Your task to perform on an android device: Go to notification settings Image 0: 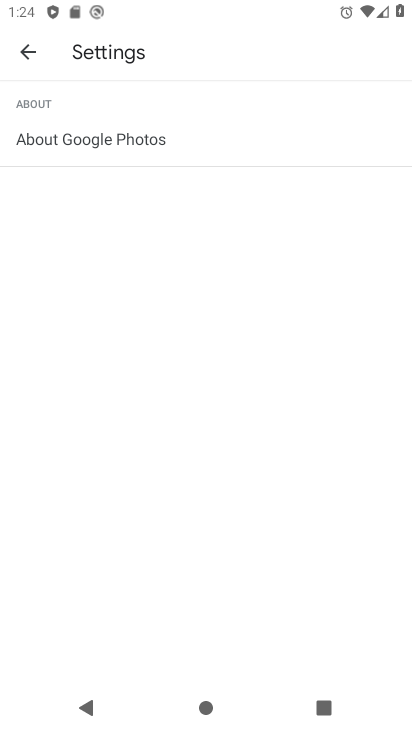
Step 0: press home button
Your task to perform on an android device: Go to notification settings Image 1: 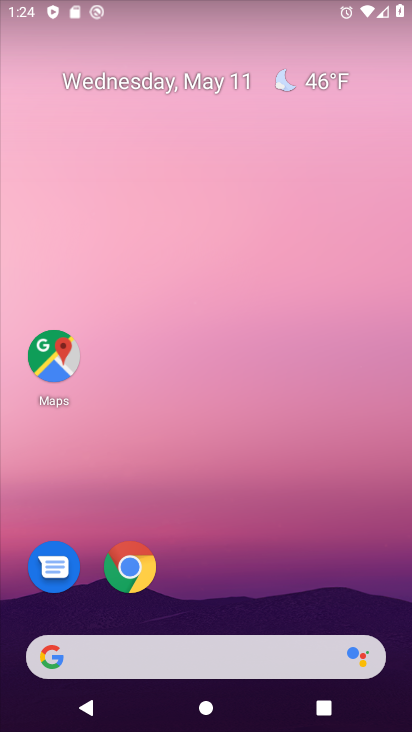
Step 1: drag from (232, 625) to (127, 1)
Your task to perform on an android device: Go to notification settings Image 2: 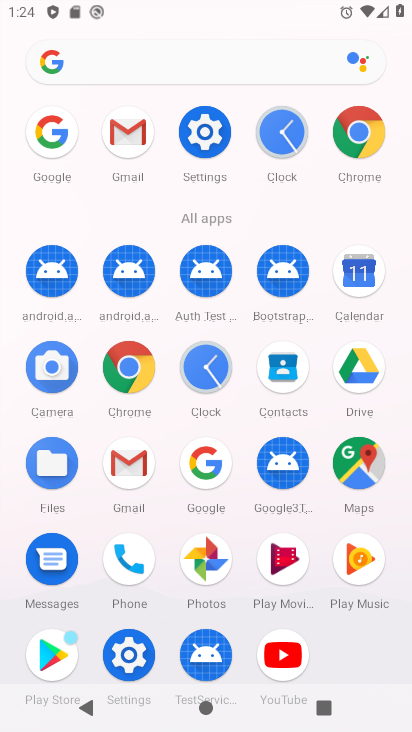
Step 2: click (186, 128)
Your task to perform on an android device: Go to notification settings Image 3: 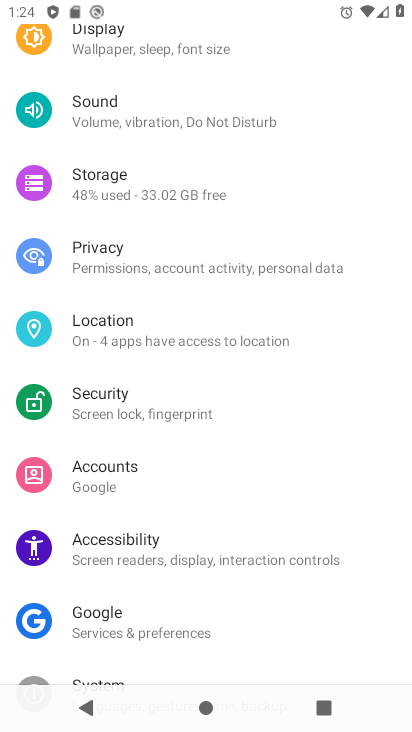
Step 3: drag from (209, 286) to (193, 587)
Your task to perform on an android device: Go to notification settings Image 4: 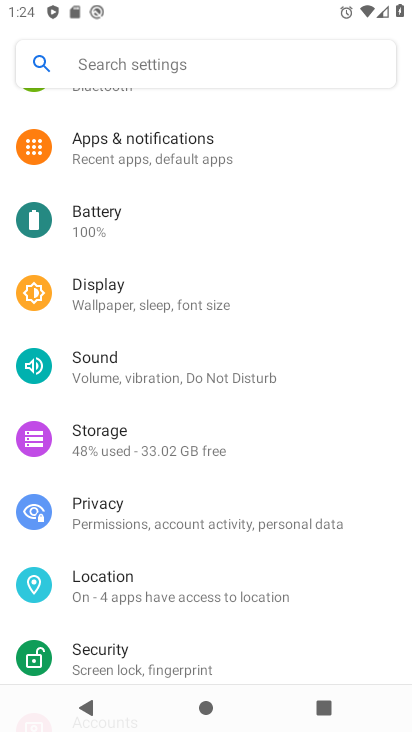
Step 4: click (95, 144)
Your task to perform on an android device: Go to notification settings Image 5: 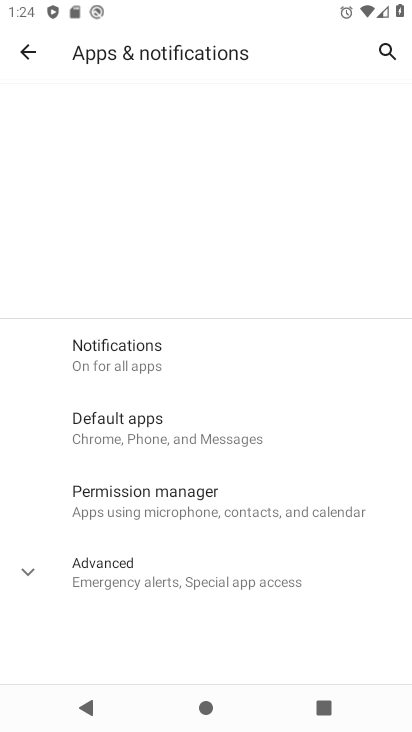
Step 5: click (135, 372)
Your task to perform on an android device: Go to notification settings Image 6: 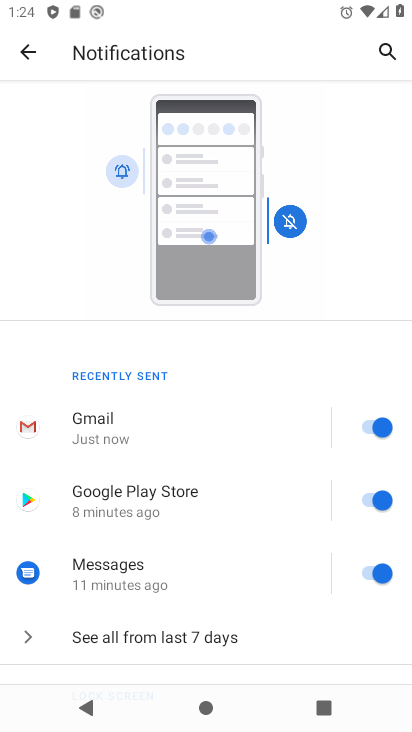
Step 6: task complete